Your task to perform on an android device: check out phone information Image 0: 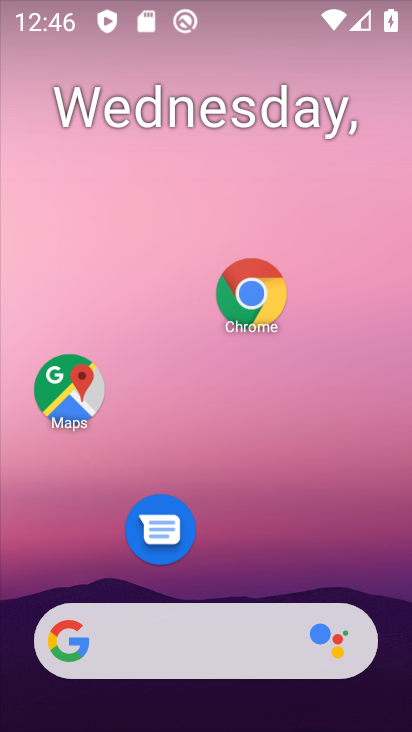
Step 0: drag from (252, 583) to (311, 124)
Your task to perform on an android device: check out phone information Image 1: 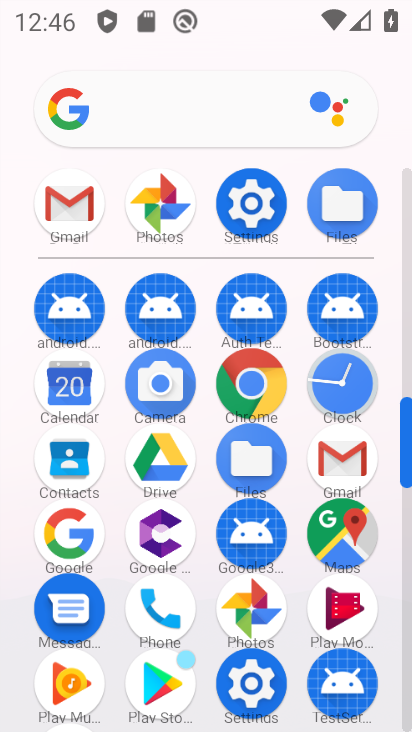
Step 1: click (248, 207)
Your task to perform on an android device: check out phone information Image 2: 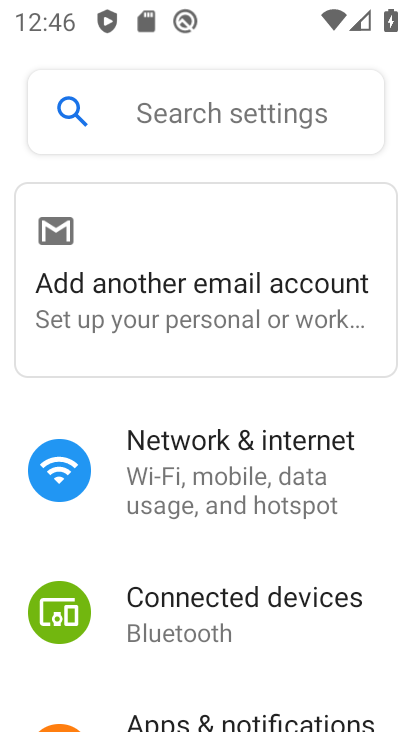
Step 2: drag from (249, 474) to (310, 93)
Your task to perform on an android device: check out phone information Image 3: 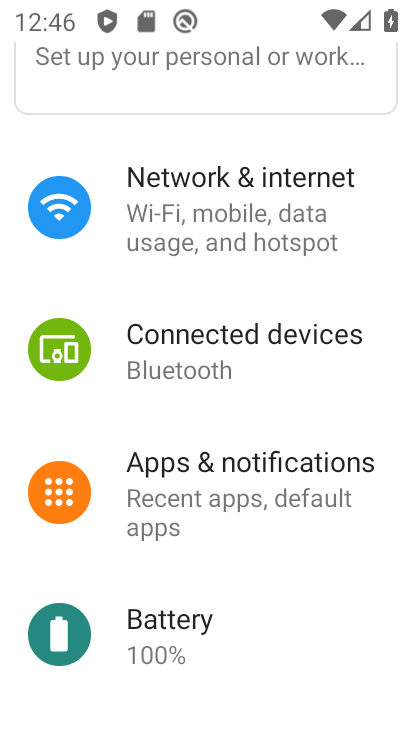
Step 3: drag from (295, 326) to (338, 19)
Your task to perform on an android device: check out phone information Image 4: 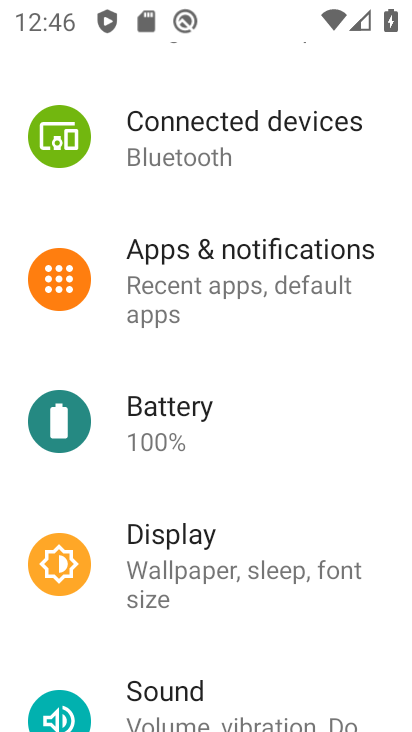
Step 4: drag from (243, 465) to (295, 31)
Your task to perform on an android device: check out phone information Image 5: 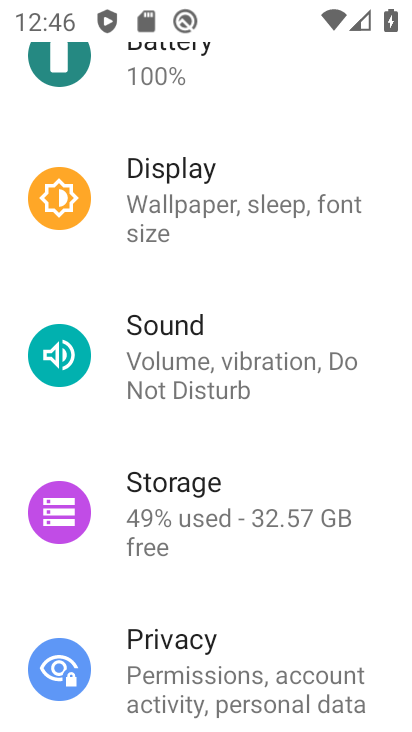
Step 5: drag from (249, 480) to (309, 58)
Your task to perform on an android device: check out phone information Image 6: 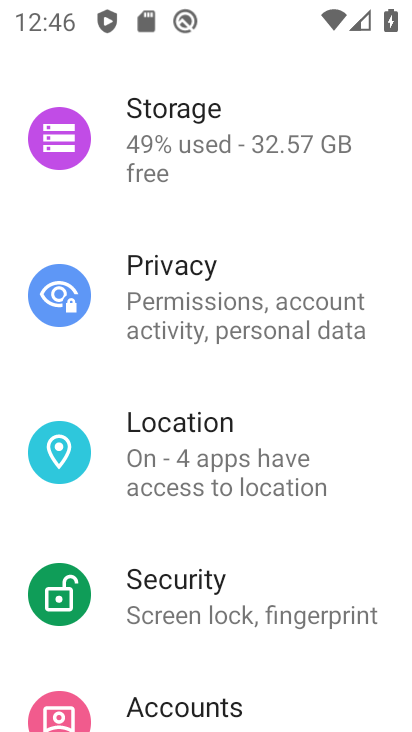
Step 6: drag from (242, 447) to (309, 49)
Your task to perform on an android device: check out phone information Image 7: 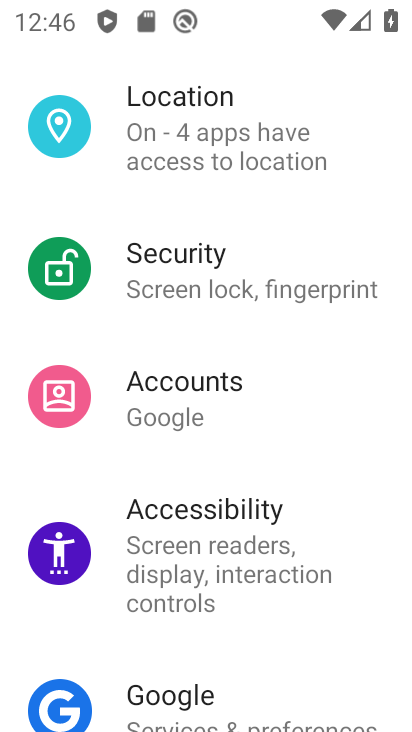
Step 7: drag from (197, 494) to (277, 53)
Your task to perform on an android device: check out phone information Image 8: 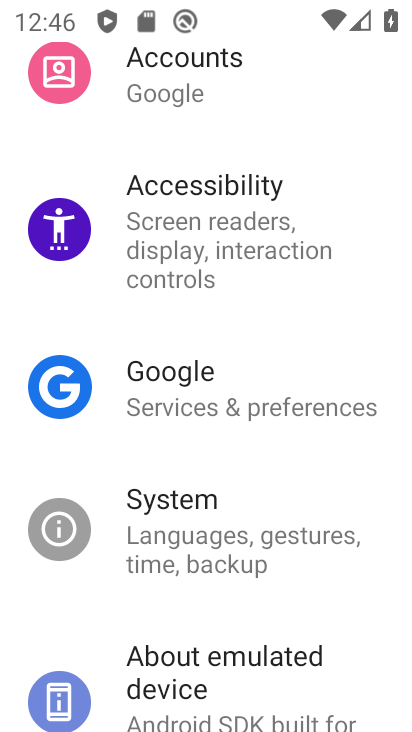
Step 8: drag from (150, 619) to (248, 136)
Your task to perform on an android device: check out phone information Image 9: 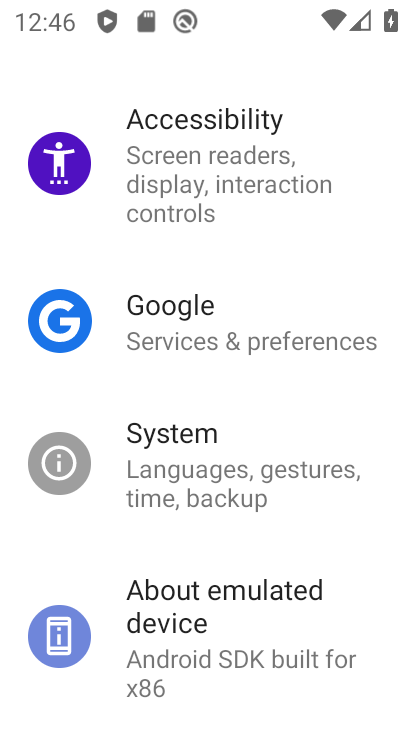
Step 9: drag from (223, 432) to (282, 130)
Your task to perform on an android device: check out phone information Image 10: 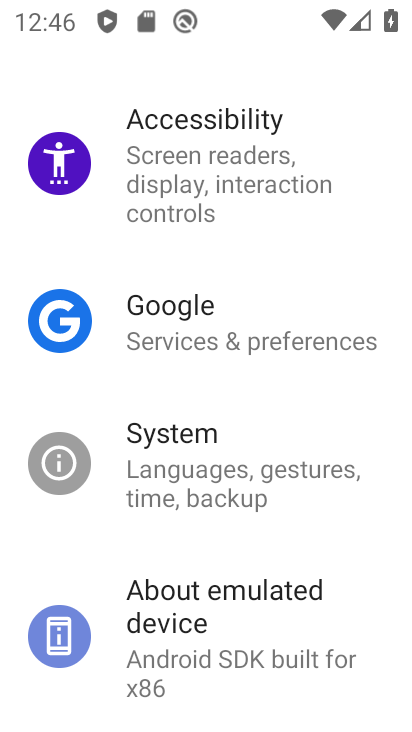
Step 10: click (193, 611)
Your task to perform on an android device: check out phone information Image 11: 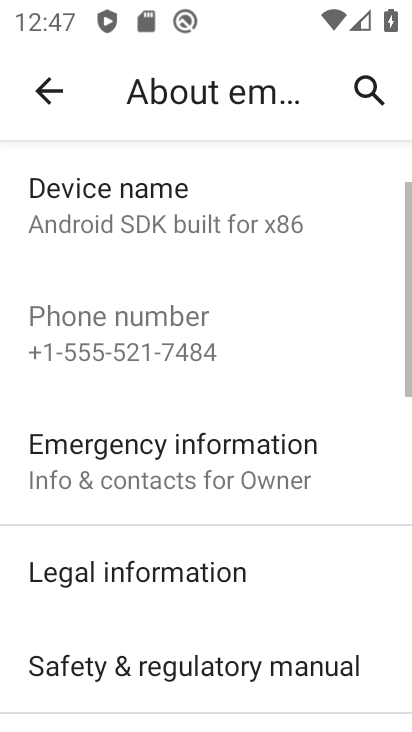
Step 11: task complete